Your task to perform on an android device: turn on javascript in the chrome app Image 0: 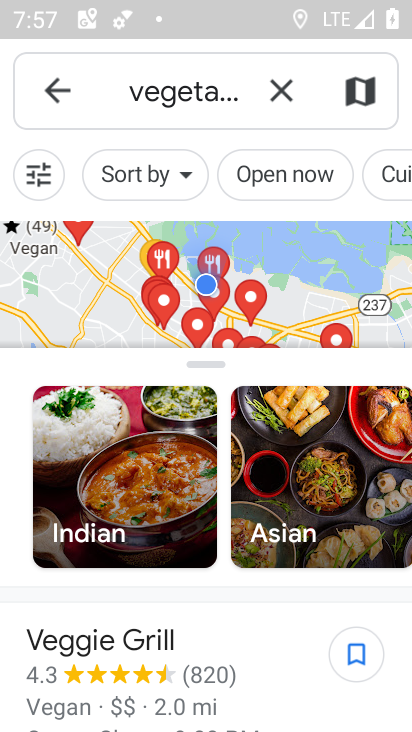
Step 0: press home button
Your task to perform on an android device: turn on javascript in the chrome app Image 1: 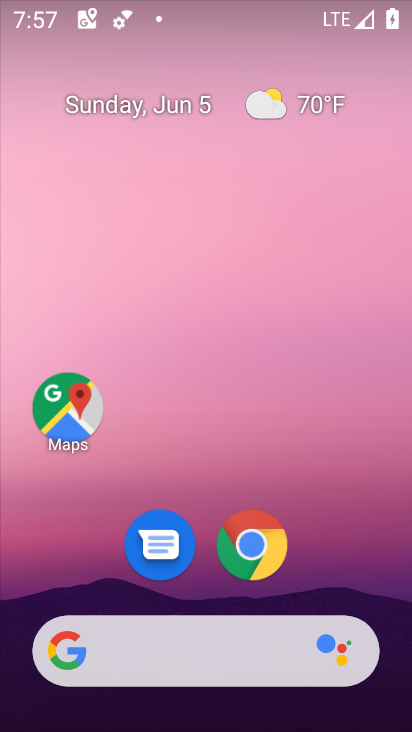
Step 1: click (250, 552)
Your task to perform on an android device: turn on javascript in the chrome app Image 2: 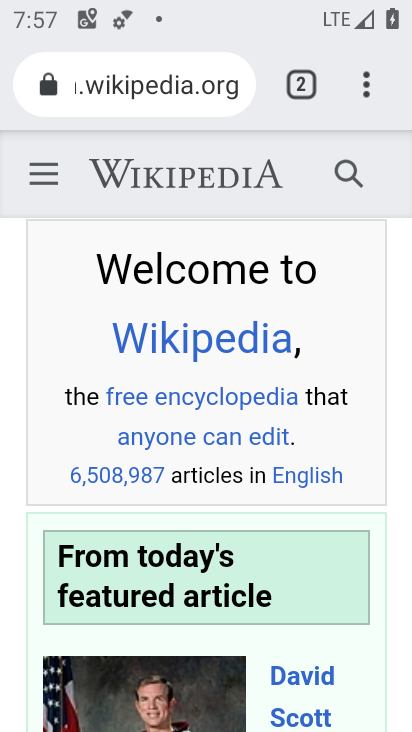
Step 2: click (362, 91)
Your task to perform on an android device: turn on javascript in the chrome app Image 3: 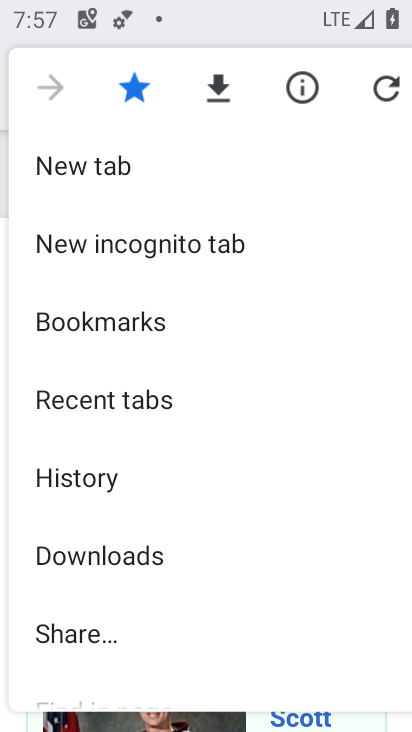
Step 3: drag from (208, 586) to (238, 301)
Your task to perform on an android device: turn on javascript in the chrome app Image 4: 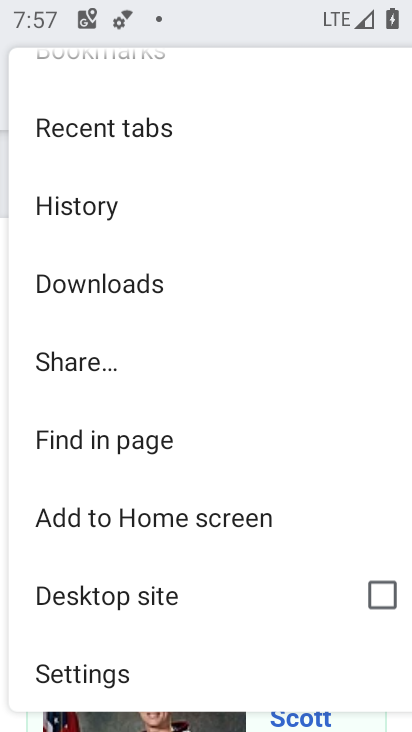
Step 4: click (104, 676)
Your task to perform on an android device: turn on javascript in the chrome app Image 5: 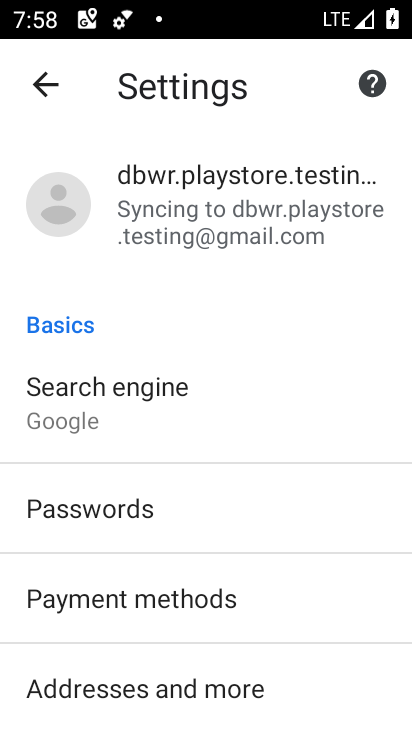
Step 5: drag from (143, 584) to (165, 444)
Your task to perform on an android device: turn on javascript in the chrome app Image 6: 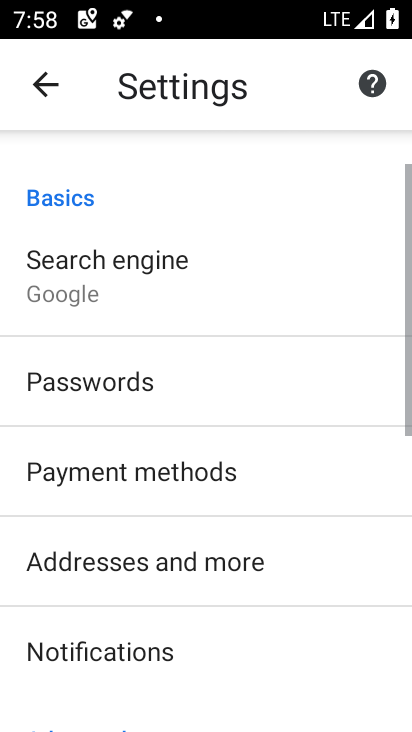
Step 6: drag from (193, 336) to (214, 257)
Your task to perform on an android device: turn on javascript in the chrome app Image 7: 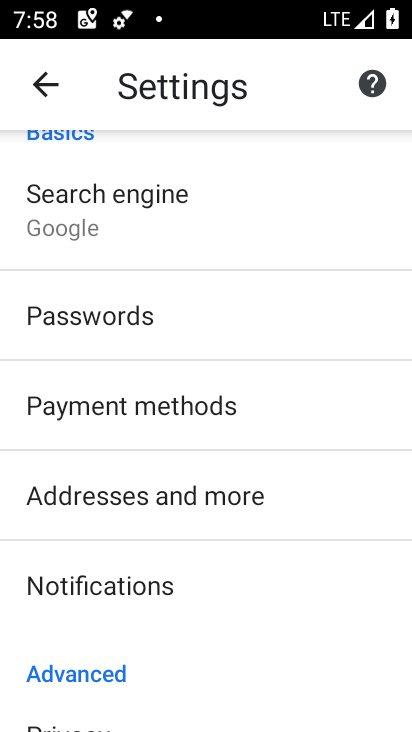
Step 7: drag from (187, 513) to (207, 270)
Your task to perform on an android device: turn on javascript in the chrome app Image 8: 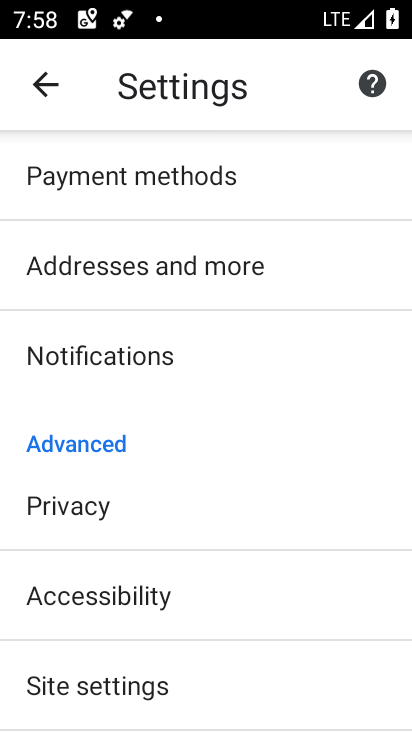
Step 8: click (174, 681)
Your task to perform on an android device: turn on javascript in the chrome app Image 9: 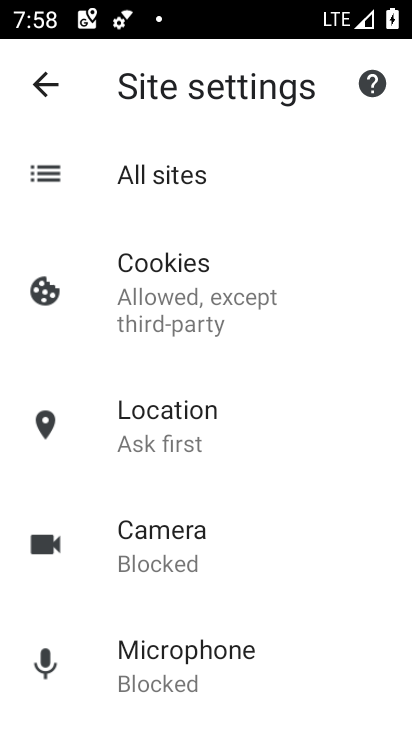
Step 9: drag from (244, 604) to (301, 241)
Your task to perform on an android device: turn on javascript in the chrome app Image 10: 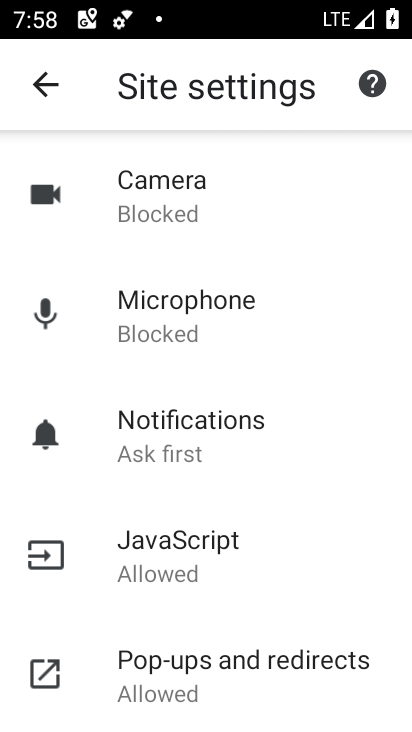
Step 10: click (240, 567)
Your task to perform on an android device: turn on javascript in the chrome app Image 11: 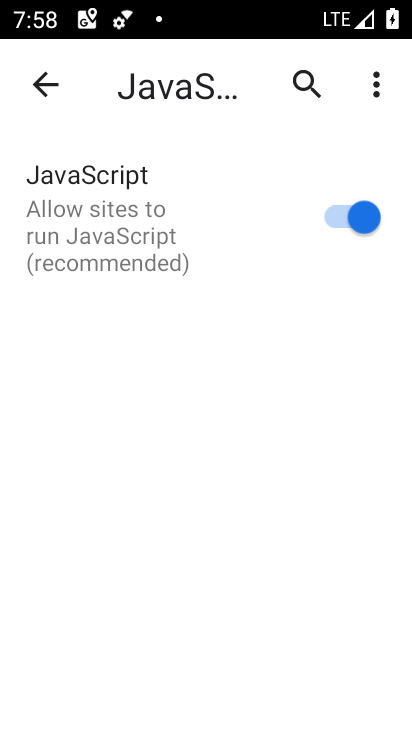
Step 11: task complete